Your task to perform on an android device: read, delete, or share a saved page in the chrome app Image 0: 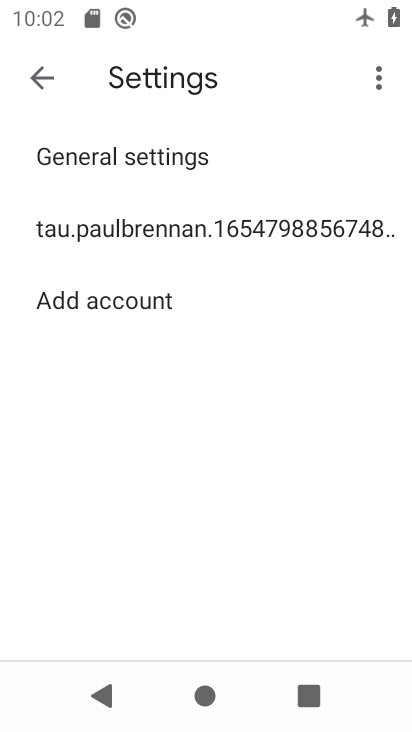
Step 0: press home button
Your task to perform on an android device: read, delete, or share a saved page in the chrome app Image 1: 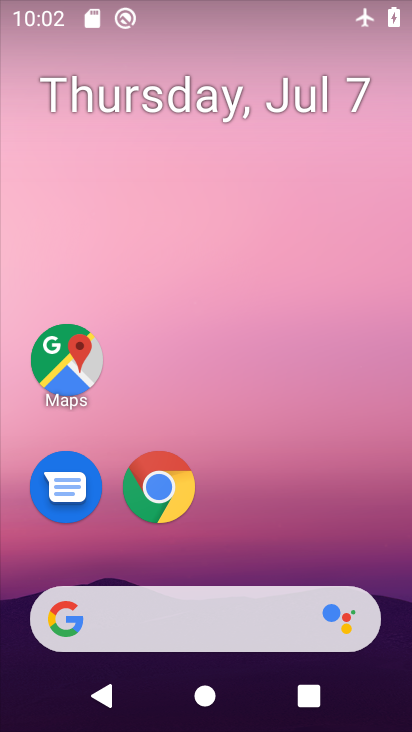
Step 1: drag from (353, 494) to (308, 158)
Your task to perform on an android device: read, delete, or share a saved page in the chrome app Image 2: 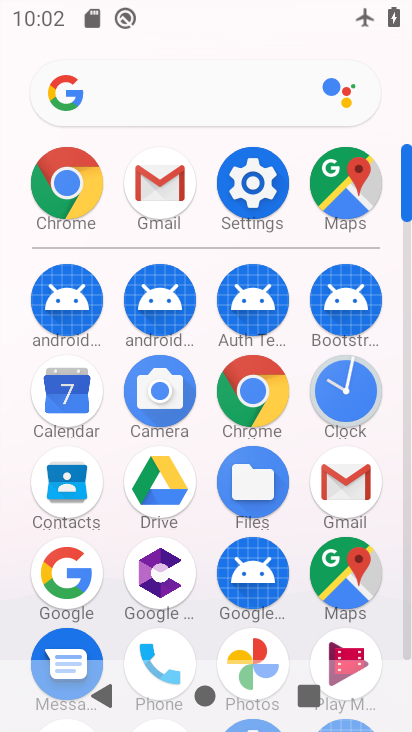
Step 2: click (268, 394)
Your task to perform on an android device: read, delete, or share a saved page in the chrome app Image 3: 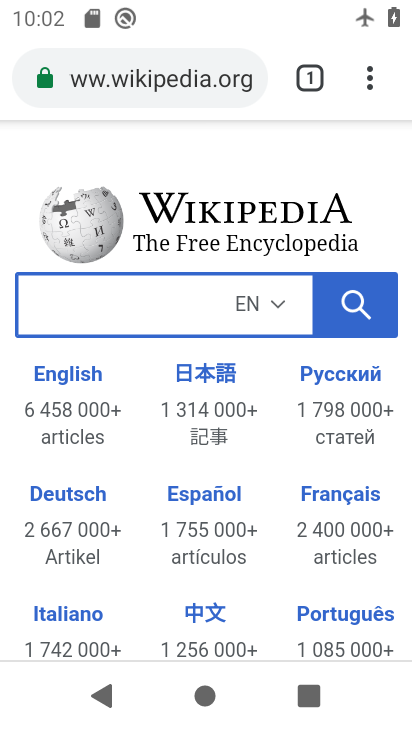
Step 3: click (372, 80)
Your task to perform on an android device: read, delete, or share a saved page in the chrome app Image 4: 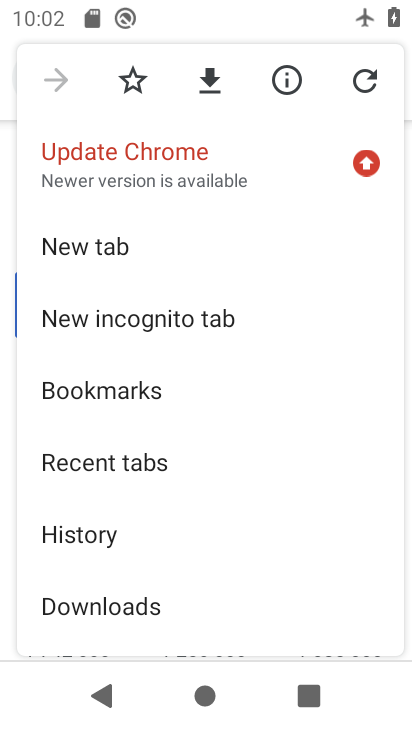
Step 4: click (163, 610)
Your task to perform on an android device: read, delete, or share a saved page in the chrome app Image 5: 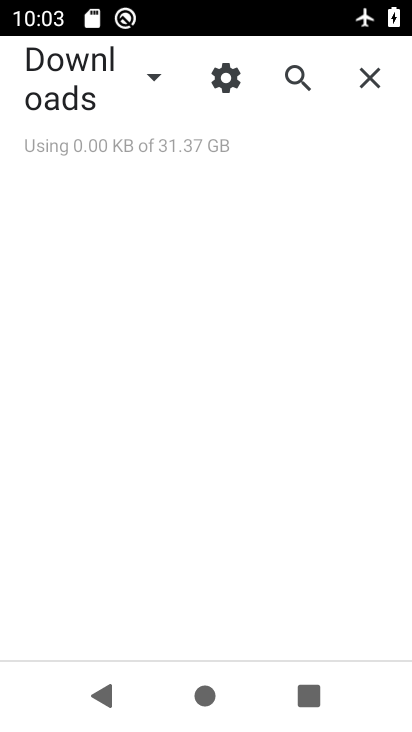
Step 5: click (152, 65)
Your task to perform on an android device: read, delete, or share a saved page in the chrome app Image 6: 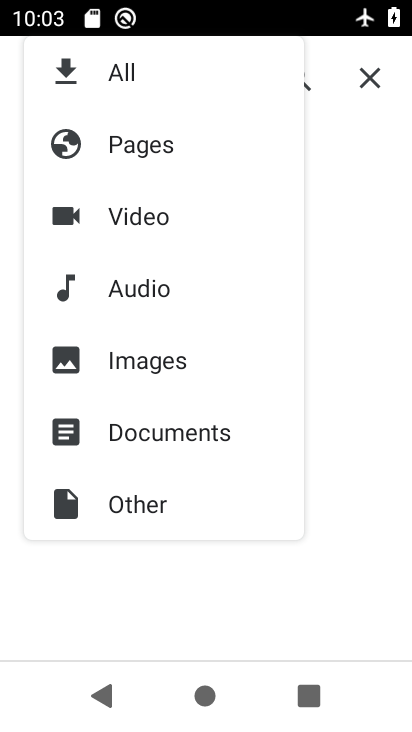
Step 6: click (169, 148)
Your task to perform on an android device: read, delete, or share a saved page in the chrome app Image 7: 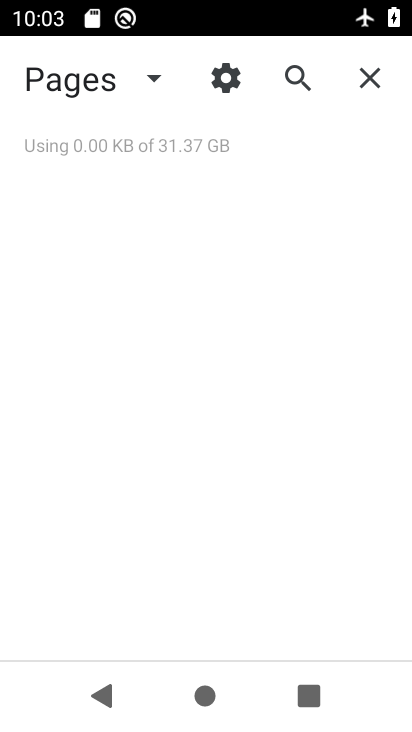
Step 7: task complete